Your task to perform on an android device: Open Chrome and go to the settings page Image 0: 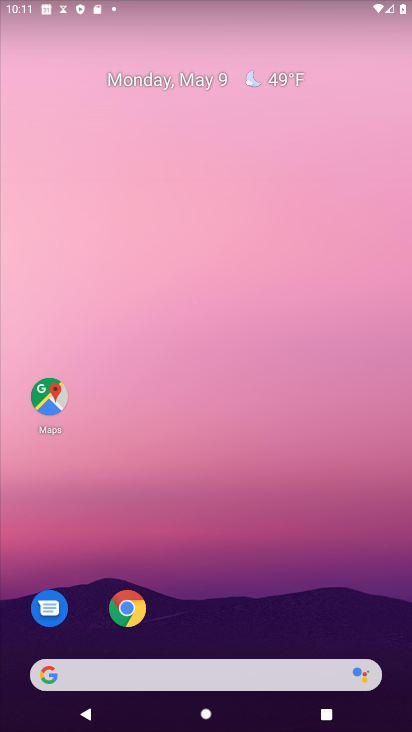
Step 0: click (109, 601)
Your task to perform on an android device: Open Chrome and go to the settings page Image 1: 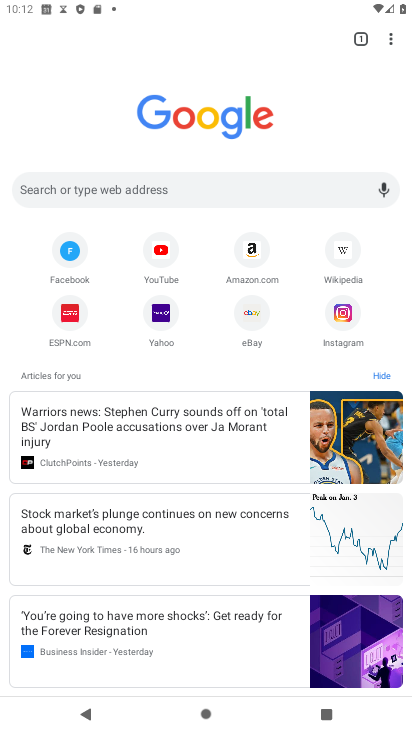
Step 1: click (391, 43)
Your task to perform on an android device: Open Chrome and go to the settings page Image 2: 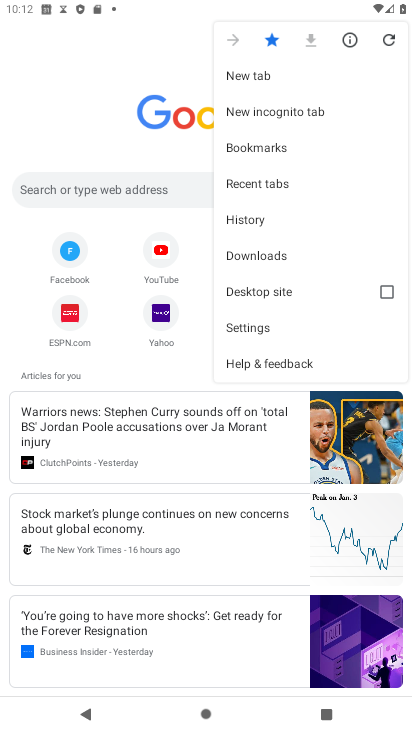
Step 2: click (266, 322)
Your task to perform on an android device: Open Chrome and go to the settings page Image 3: 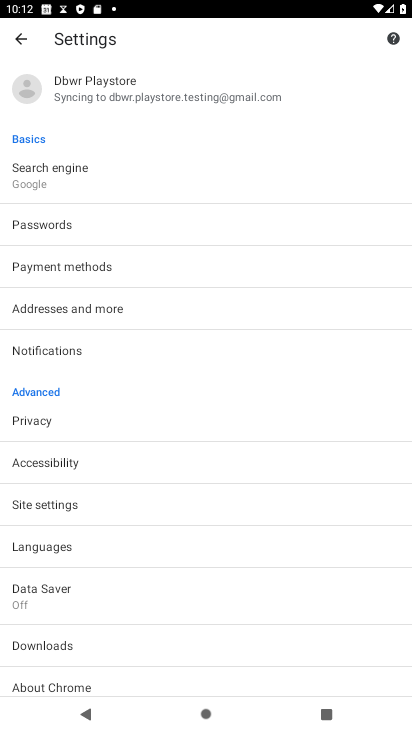
Step 3: task complete